Your task to perform on an android device: empty trash in google photos Image 0: 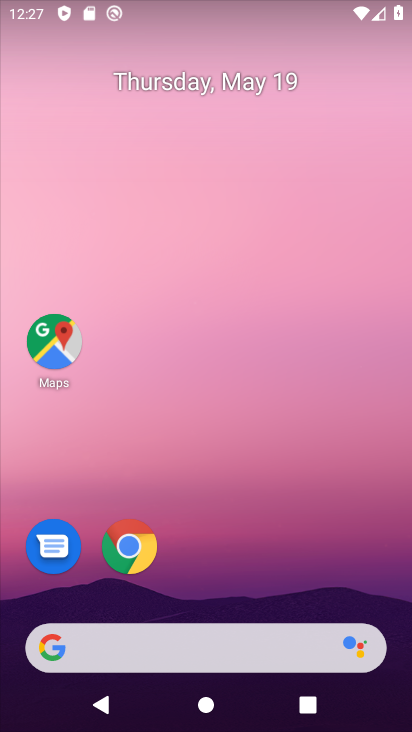
Step 0: drag from (258, 550) to (222, 113)
Your task to perform on an android device: empty trash in google photos Image 1: 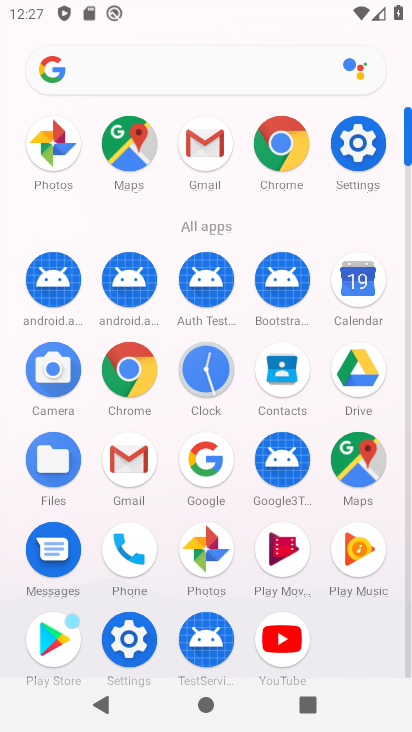
Step 1: click (54, 143)
Your task to perform on an android device: empty trash in google photos Image 2: 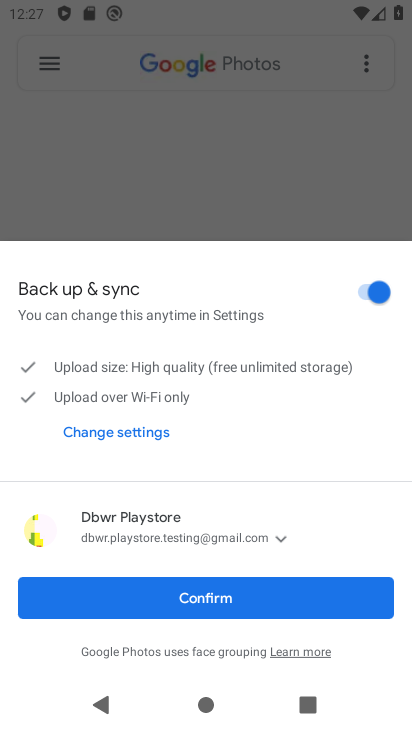
Step 2: click (207, 593)
Your task to perform on an android device: empty trash in google photos Image 3: 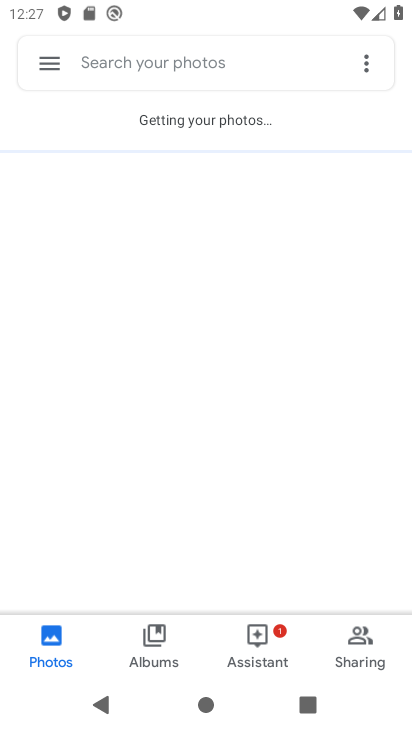
Step 3: click (50, 65)
Your task to perform on an android device: empty trash in google photos Image 4: 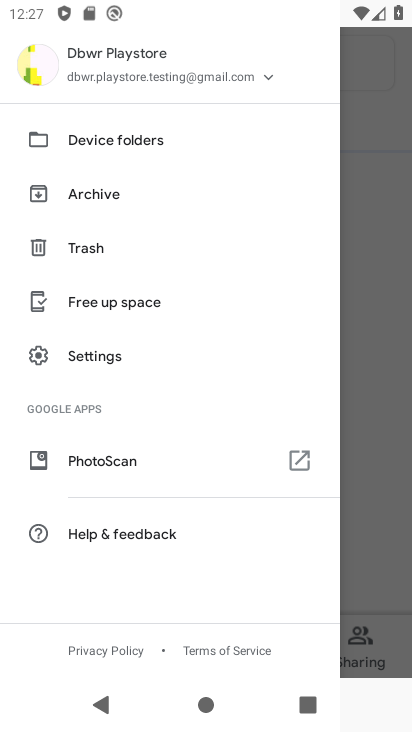
Step 4: click (79, 247)
Your task to perform on an android device: empty trash in google photos Image 5: 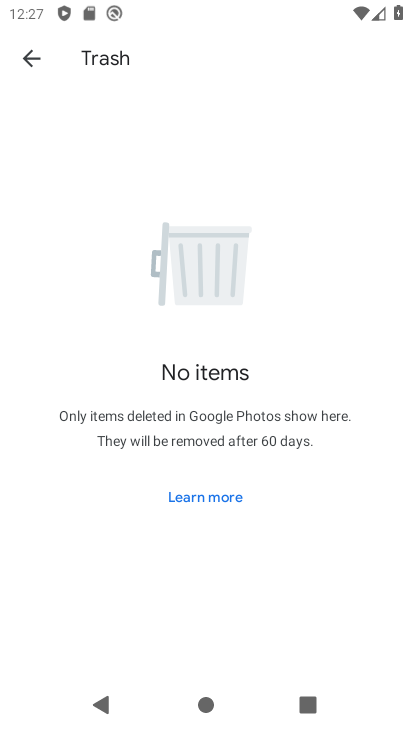
Step 5: task complete